Your task to perform on an android device: read, delete, or share a saved page in the chrome app Image 0: 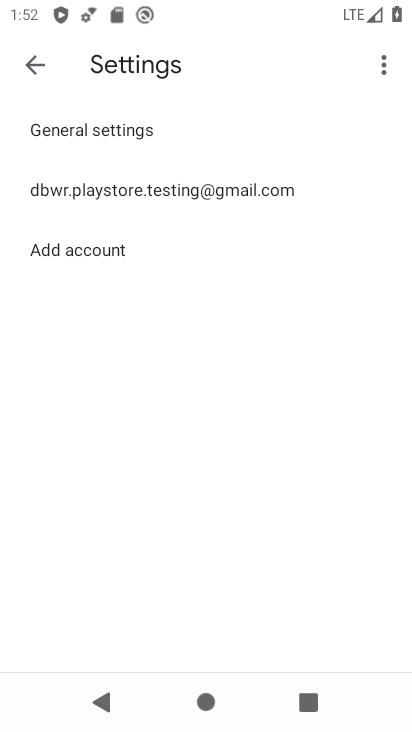
Step 0: press home button
Your task to perform on an android device: read, delete, or share a saved page in the chrome app Image 1: 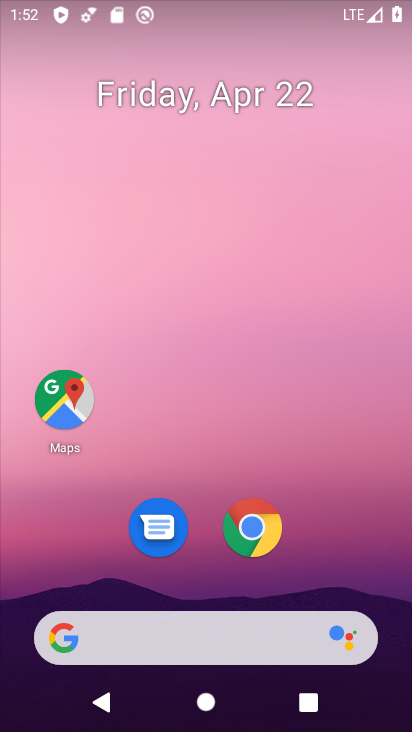
Step 1: click (253, 530)
Your task to perform on an android device: read, delete, or share a saved page in the chrome app Image 2: 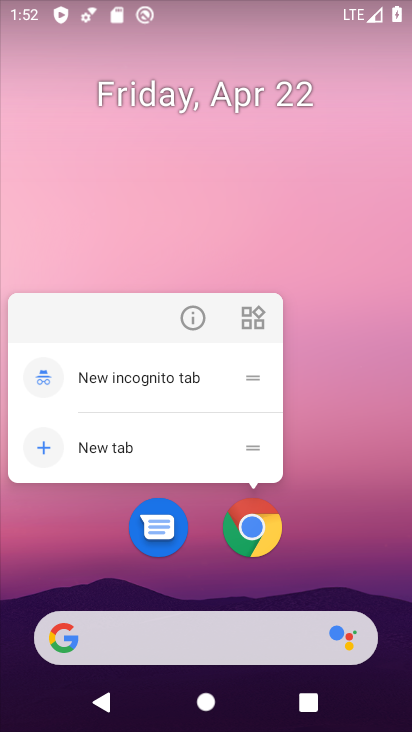
Step 2: click (250, 530)
Your task to perform on an android device: read, delete, or share a saved page in the chrome app Image 3: 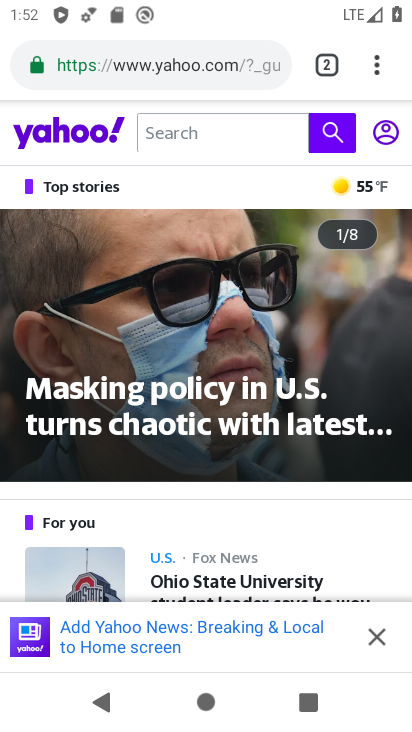
Step 3: drag from (375, 67) to (166, 429)
Your task to perform on an android device: read, delete, or share a saved page in the chrome app Image 4: 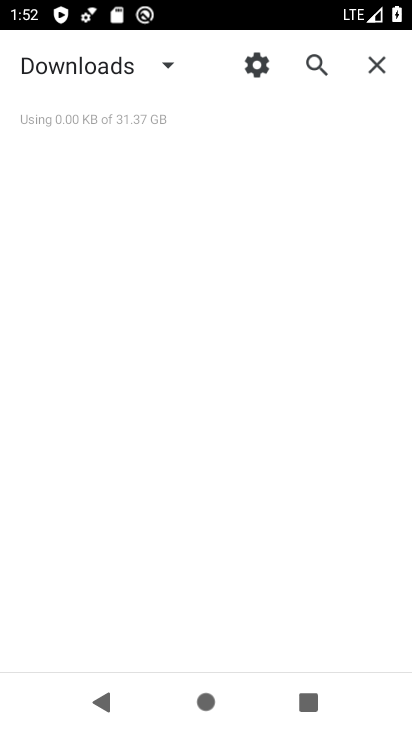
Step 4: click (382, 60)
Your task to perform on an android device: read, delete, or share a saved page in the chrome app Image 5: 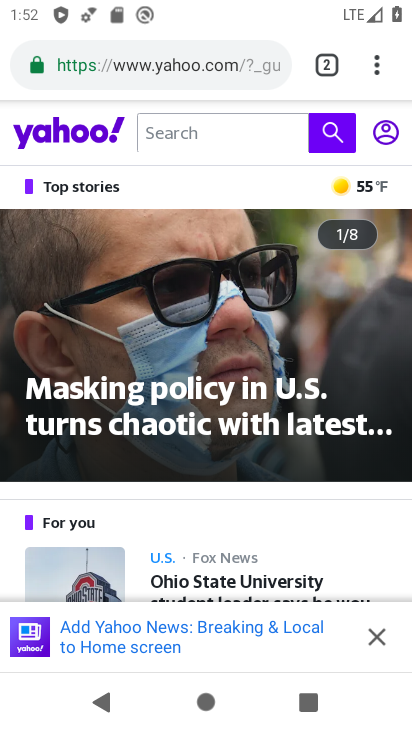
Step 5: drag from (381, 61) to (239, 257)
Your task to perform on an android device: read, delete, or share a saved page in the chrome app Image 6: 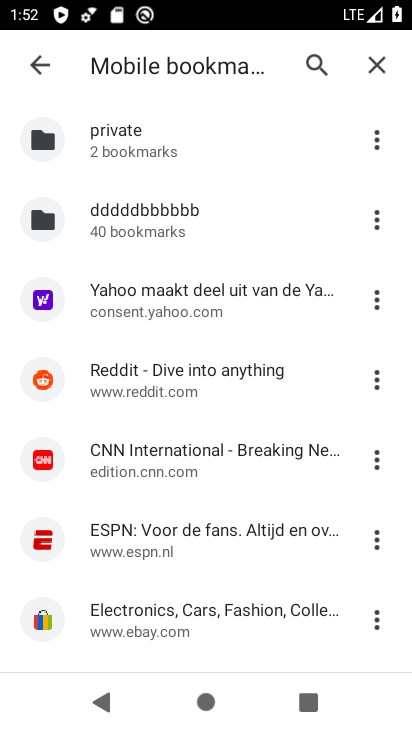
Step 6: click (379, 295)
Your task to perform on an android device: read, delete, or share a saved page in the chrome app Image 7: 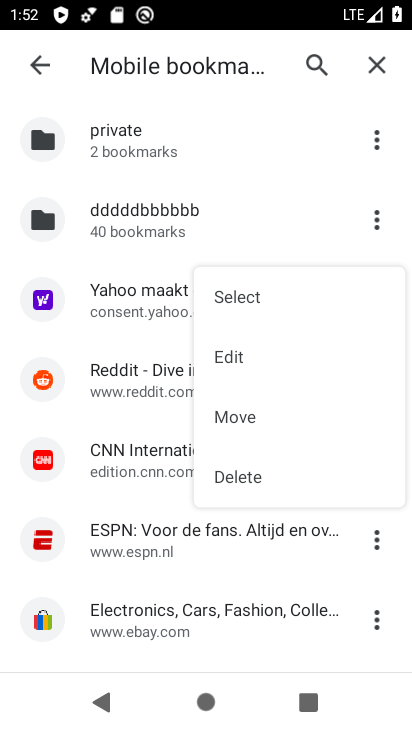
Step 7: click (235, 481)
Your task to perform on an android device: read, delete, or share a saved page in the chrome app Image 8: 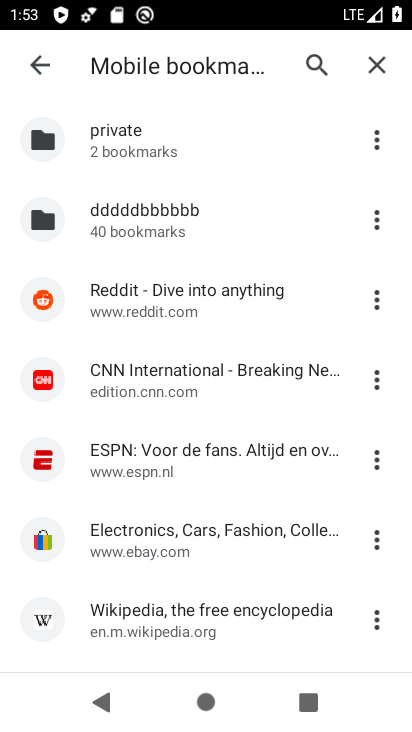
Step 8: task complete